Your task to perform on an android device: change the clock style Image 0: 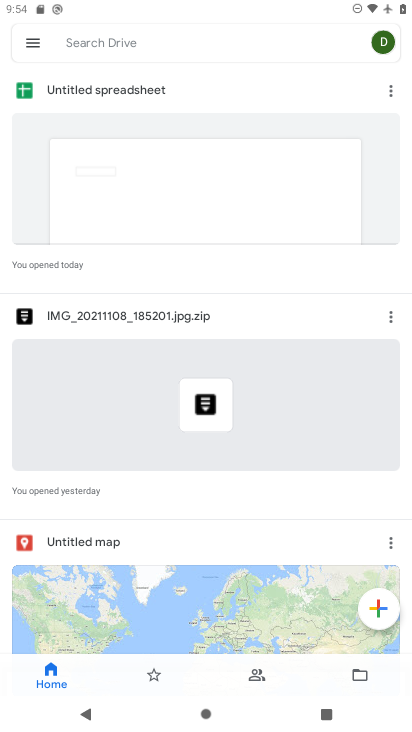
Step 0: press home button
Your task to perform on an android device: change the clock style Image 1: 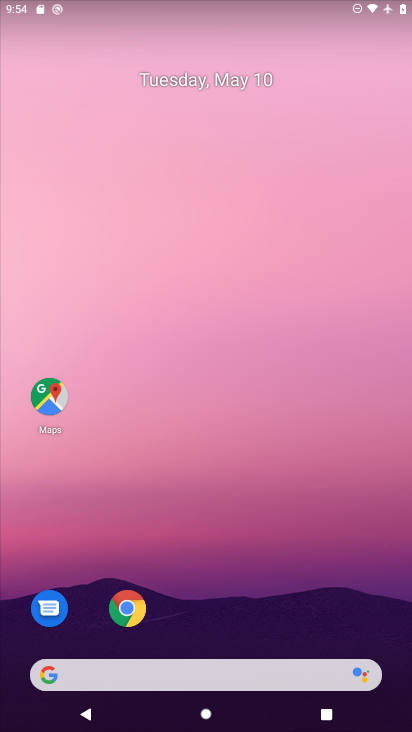
Step 1: drag from (239, 622) to (299, 118)
Your task to perform on an android device: change the clock style Image 2: 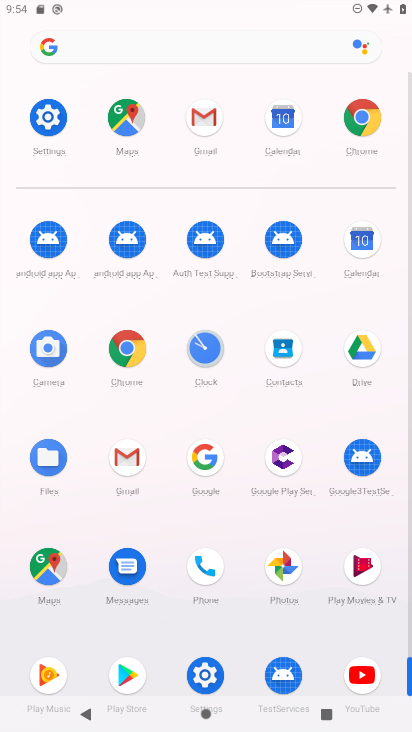
Step 2: click (197, 343)
Your task to perform on an android device: change the clock style Image 3: 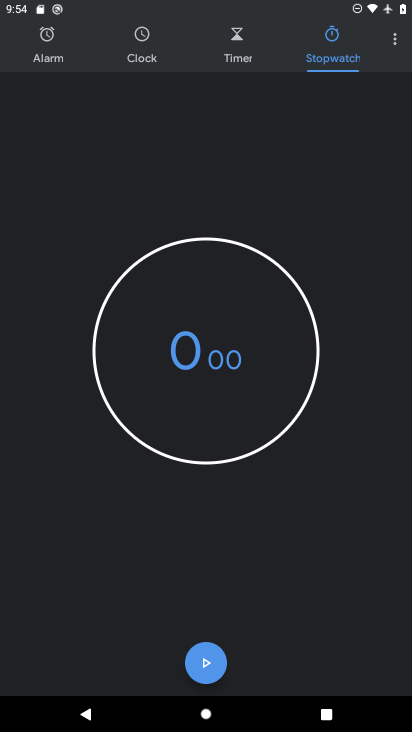
Step 3: click (379, 50)
Your task to perform on an android device: change the clock style Image 4: 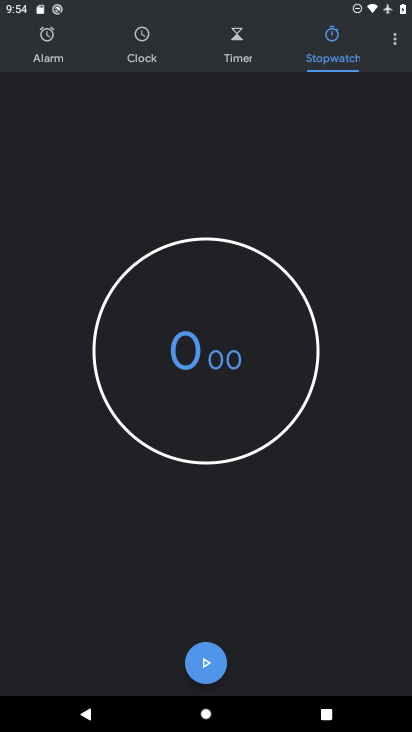
Step 4: click (388, 48)
Your task to perform on an android device: change the clock style Image 5: 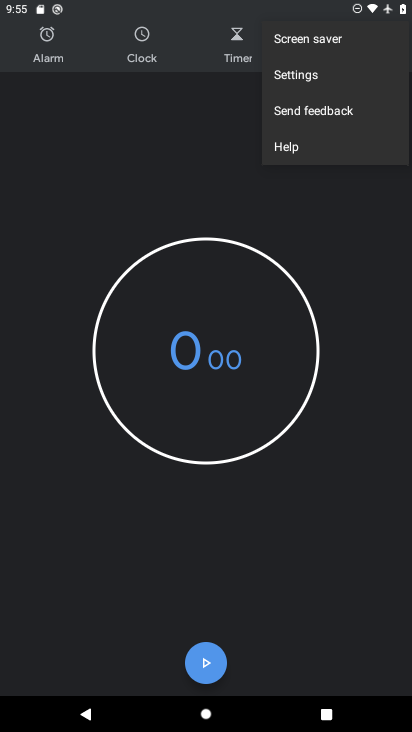
Step 5: click (306, 70)
Your task to perform on an android device: change the clock style Image 6: 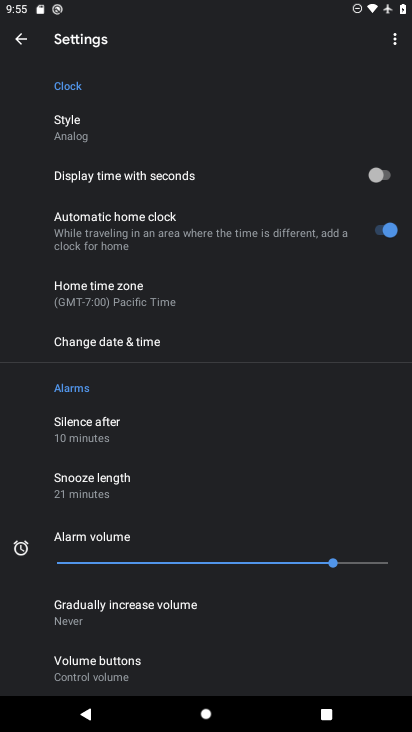
Step 6: click (101, 132)
Your task to perform on an android device: change the clock style Image 7: 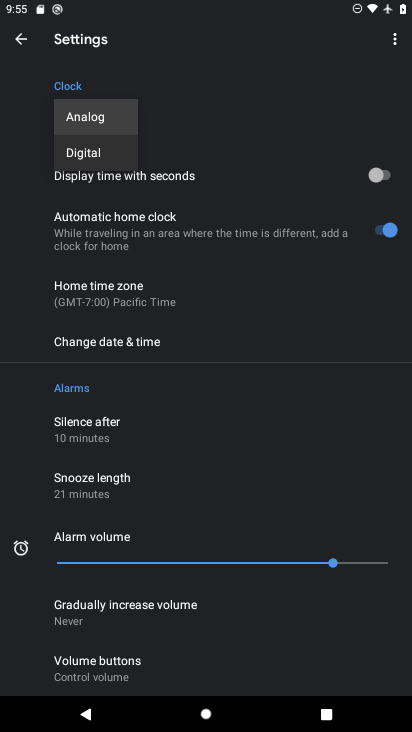
Step 7: click (101, 155)
Your task to perform on an android device: change the clock style Image 8: 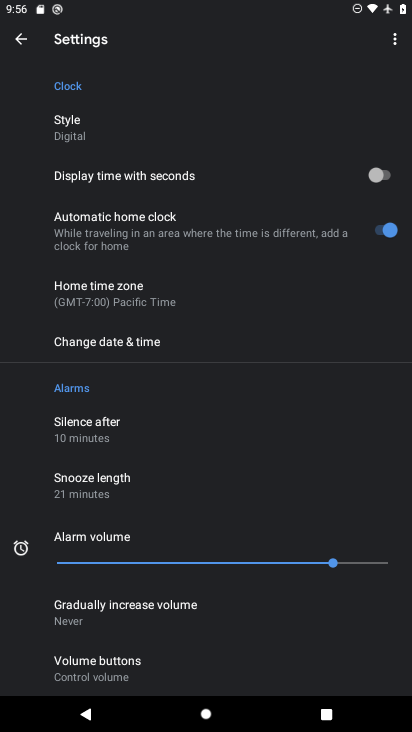
Step 8: task complete